Your task to perform on an android device: check battery use Image 0: 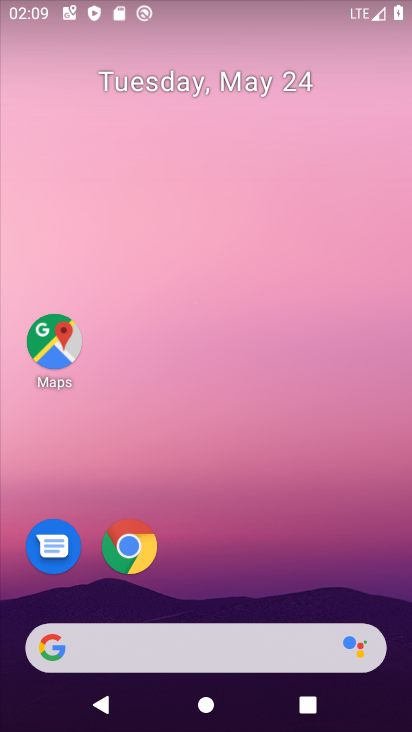
Step 0: drag from (98, 485) to (211, 93)
Your task to perform on an android device: check battery use Image 1: 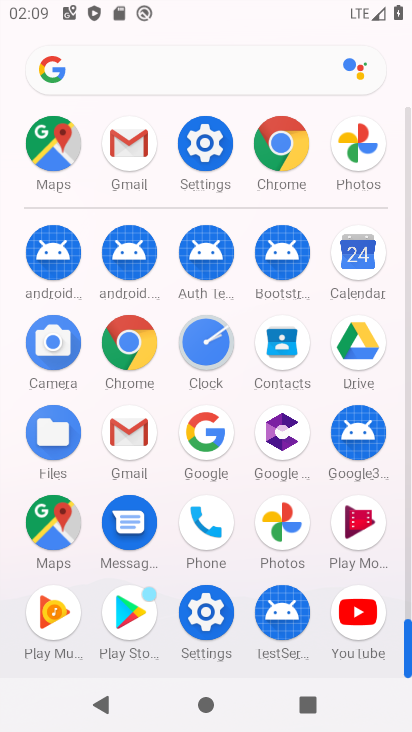
Step 1: click (211, 613)
Your task to perform on an android device: check battery use Image 2: 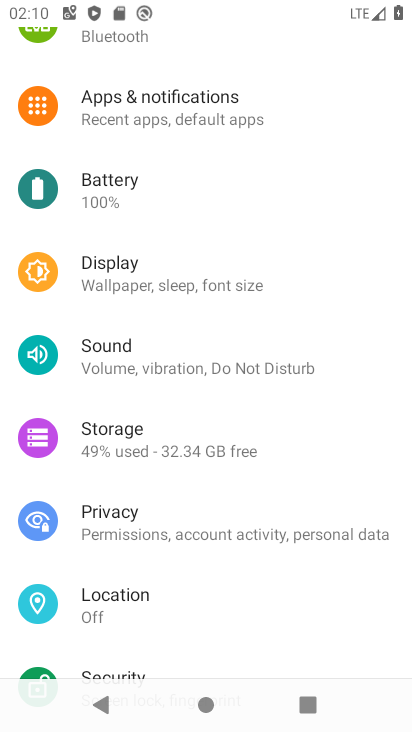
Step 2: drag from (287, 223) to (273, 703)
Your task to perform on an android device: check battery use Image 3: 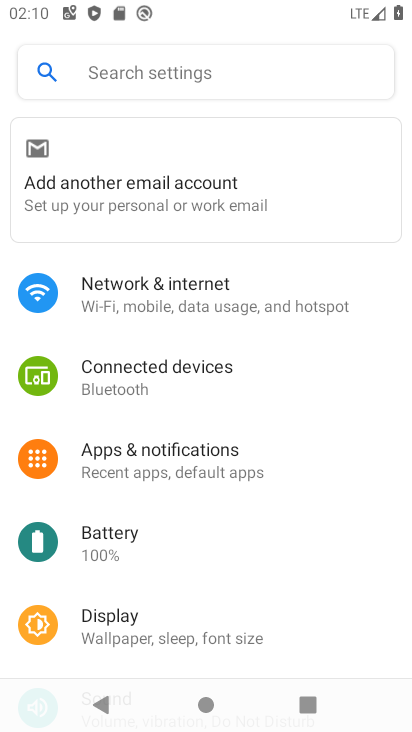
Step 3: click (153, 543)
Your task to perform on an android device: check battery use Image 4: 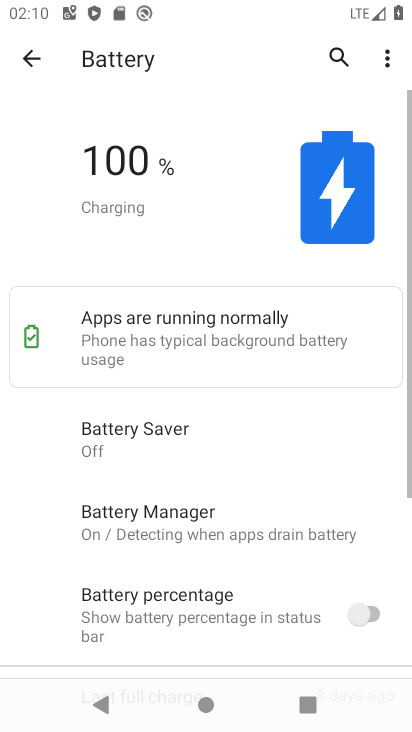
Step 4: drag from (199, 548) to (288, 164)
Your task to perform on an android device: check battery use Image 5: 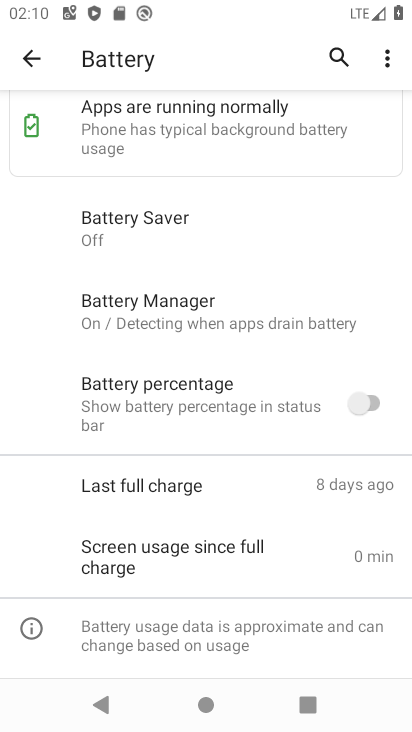
Step 5: drag from (209, 456) to (269, 196)
Your task to perform on an android device: check battery use Image 6: 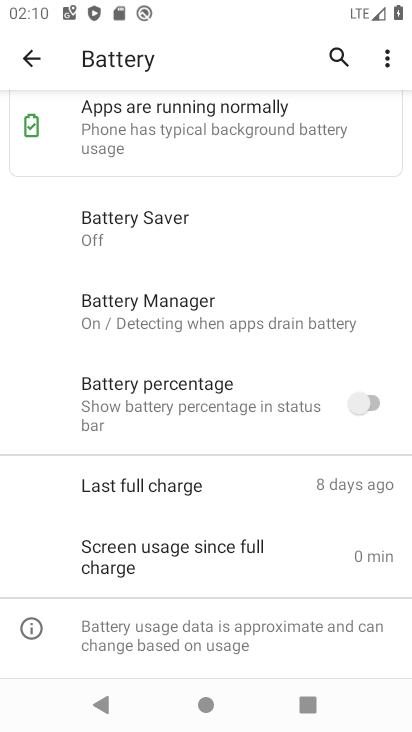
Step 6: drag from (197, 227) to (267, 616)
Your task to perform on an android device: check battery use Image 7: 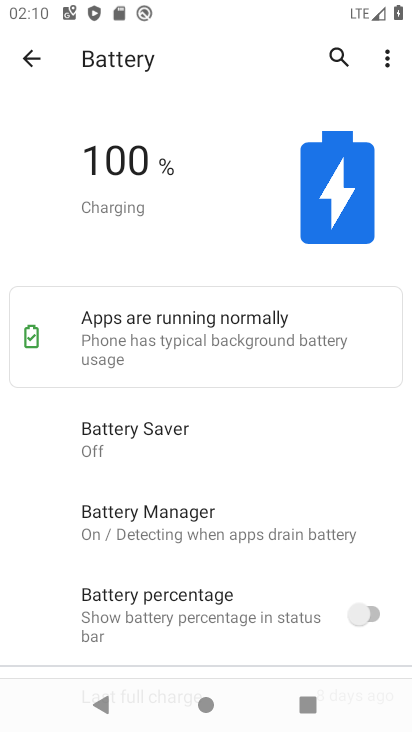
Step 7: click (384, 61)
Your task to perform on an android device: check battery use Image 8: 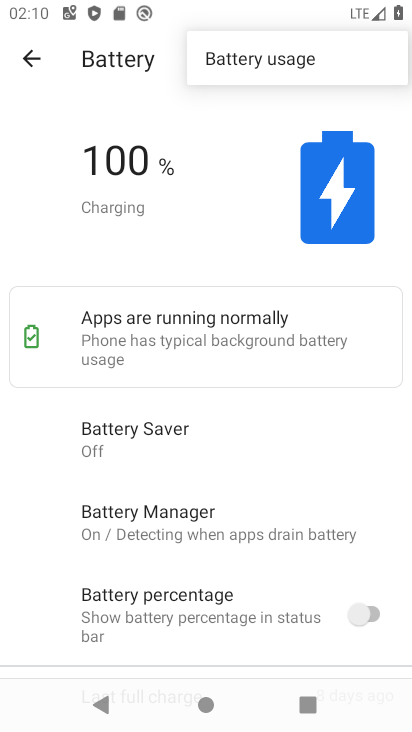
Step 8: click (318, 56)
Your task to perform on an android device: check battery use Image 9: 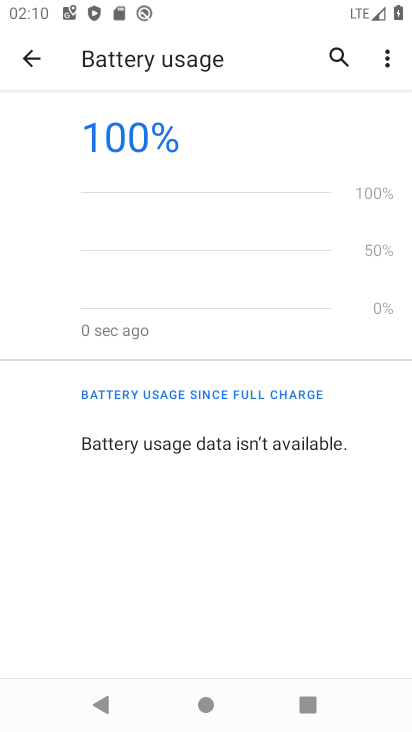
Step 9: task complete